Your task to perform on an android device: turn on location history Image 0: 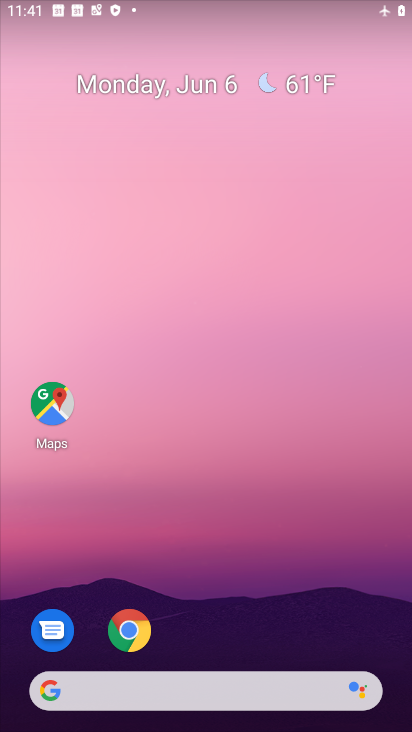
Step 0: drag from (294, 553) to (290, 128)
Your task to perform on an android device: turn on location history Image 1: 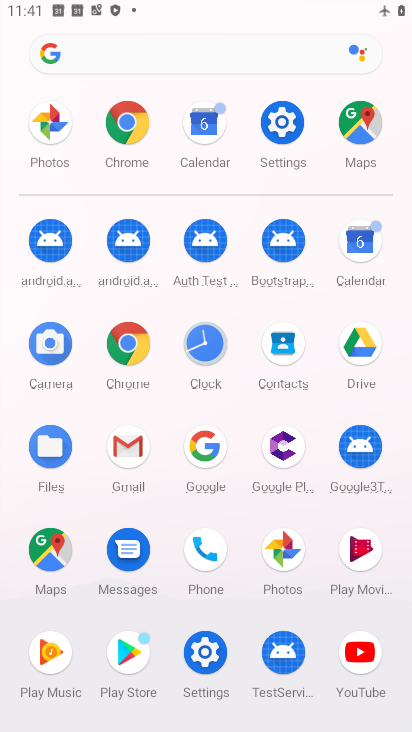
Step 1: click (290, 143)
Your task to perform on an android device: turn on location history Image 2: 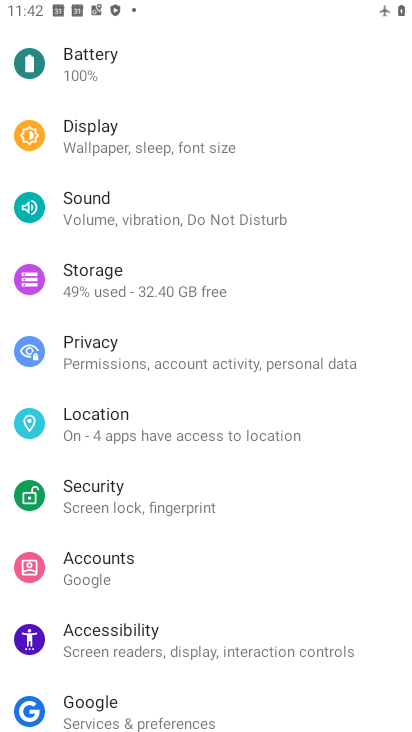
Step 2: drag from (282, 152) to (280, 568)
Your task to perform on an android device: turn on location history Image 3: 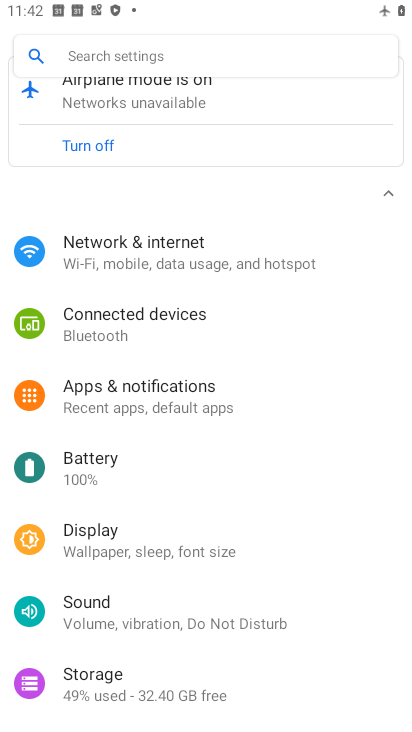
Step 3: drag from (276, 666) to (287, 343)
Your task to perform on an android device: turn on location history Image 4: 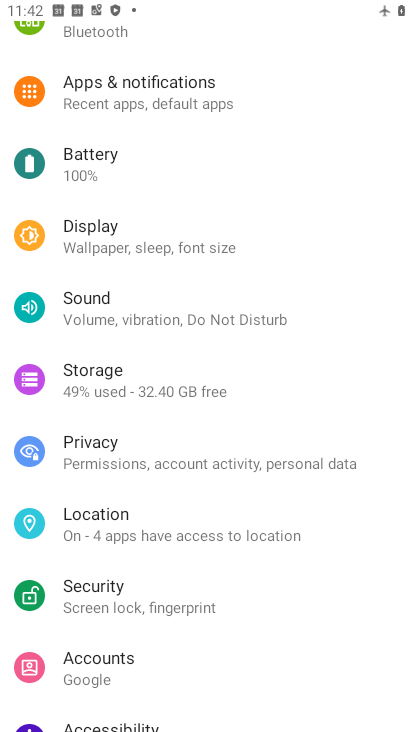
Step 4: drag from (292, 634) to (298, 342)
Your task to perform on an android device: turn on location history Image 5: 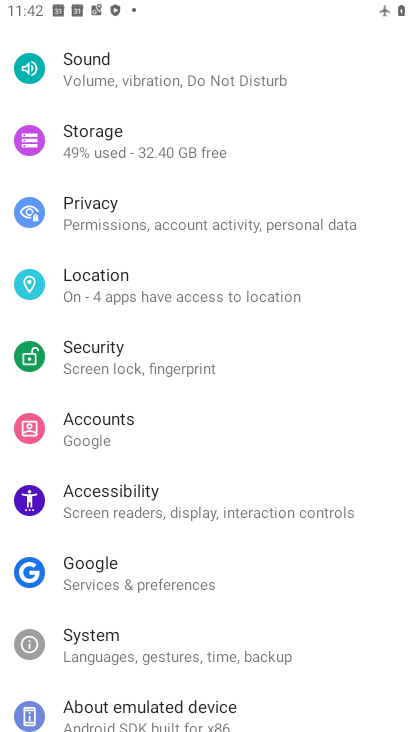
Step 5: click (193, 292)
Your task to perform on an android device: turn on location history Image 6: 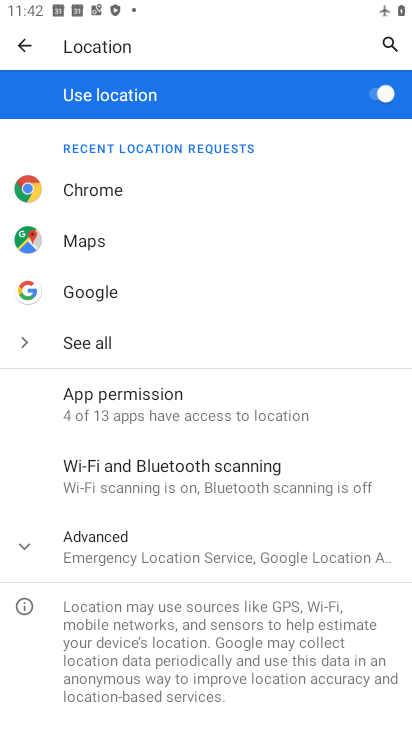
Step 6: drag from (258, 602) to (258, 298)
Your task to perform on an android device: turn on location history Image 7: 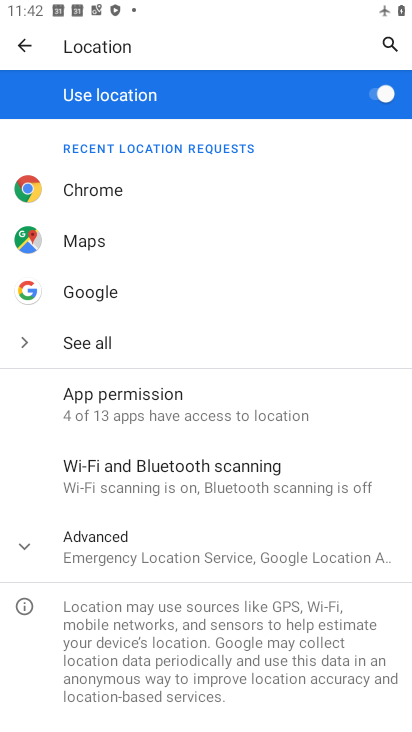
Step 7: click (233, 553)
Your task to perform on an android device: turn on location history Image 8: 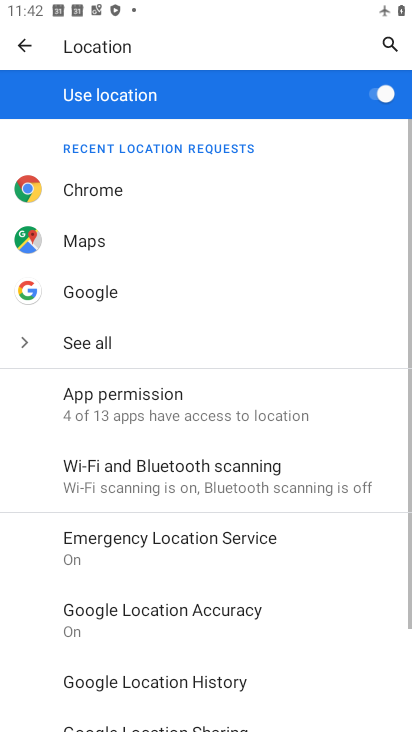
Step 8: drag from (271, 675) to (282, 395)
Your task to perform on an android device: turn on location history Image 9: 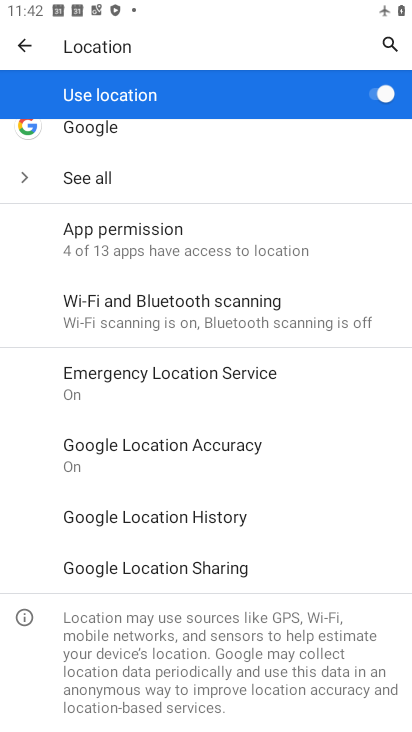
Step 9: click (218, 525)
Your task to perform on an android device: turn on location history Image 10: 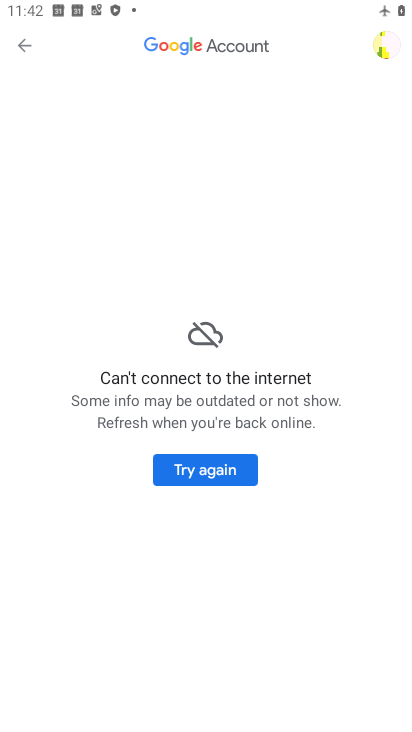
Step 10: task complete